Your task to perform on an android device: change the clock display to analog Image 0: 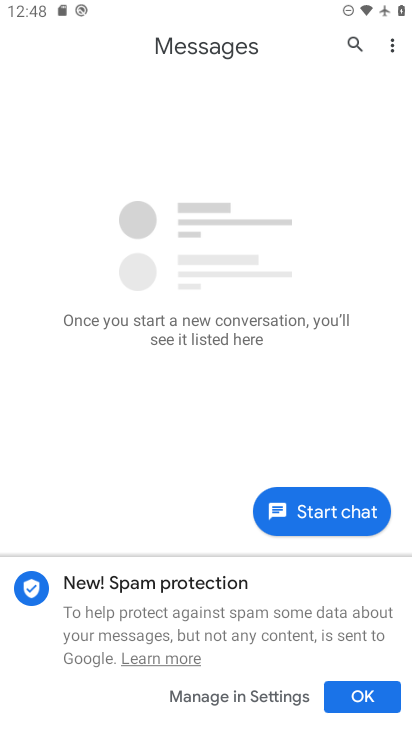
Step 0: press back button
Your task to perform on an android device: change the clock display to analog Image 1: 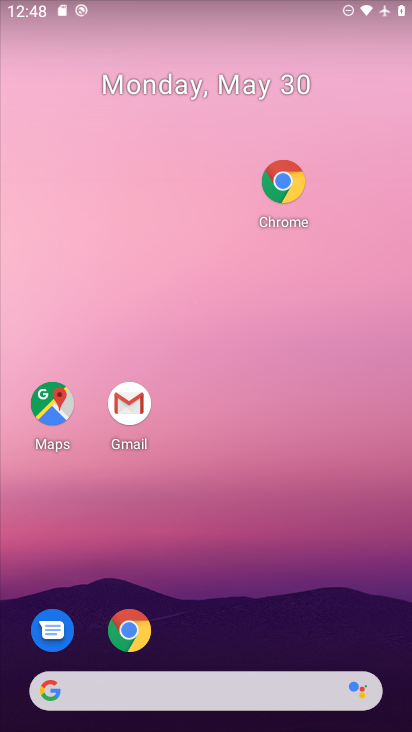
Step 1: drag from (244, 719) to (180, 239)
Your task to perform on an android device: change the clock display to analog Image 2: 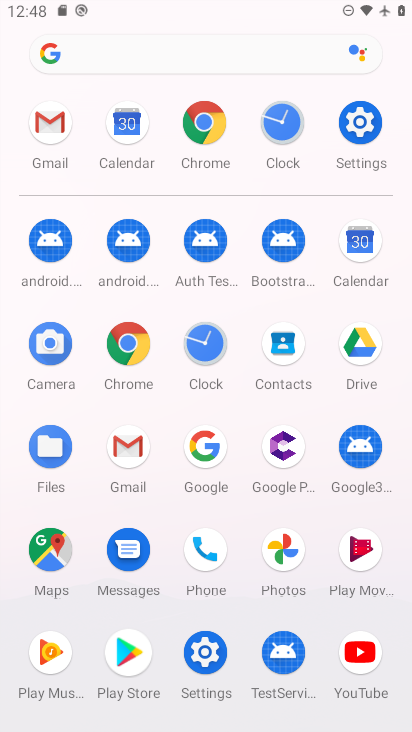
Step 2: click (205, 344)
Your task to perform on an android device: change the clock display to analog Image 3: 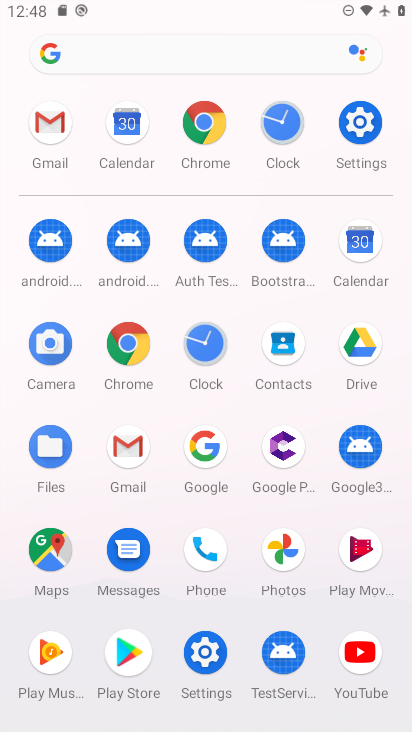
Step 3: click (212, 343)
Your task to perform on an android device: change the clock display to analog Image 4: 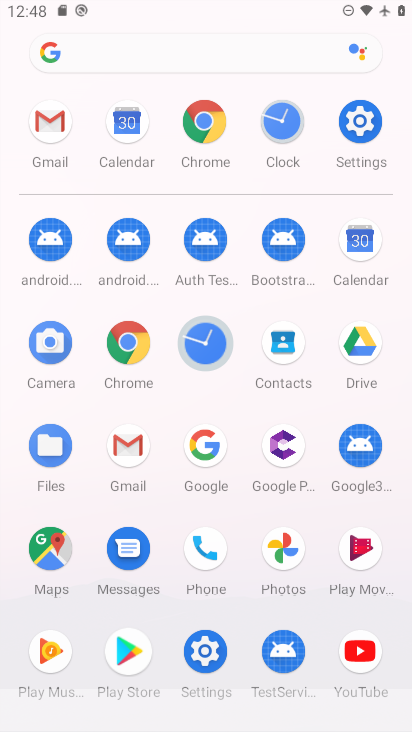
Step 4: click (213, 343)
Your task to perform on an android device: change the clock display to analog Image 5: 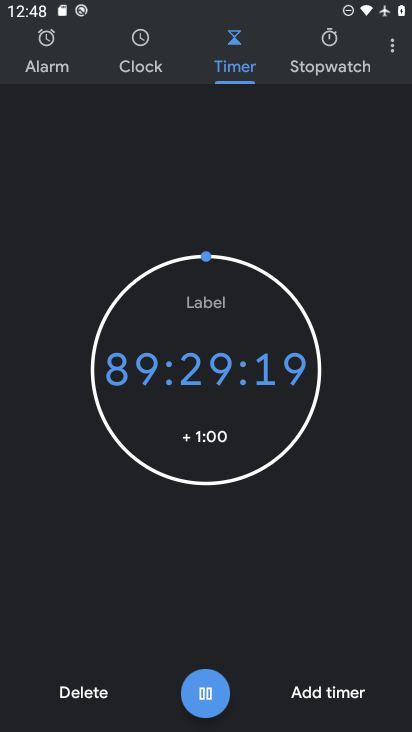
Step 5: click (384, 58)
Your task to perform on an android device: change the clock display to analog Image 6: 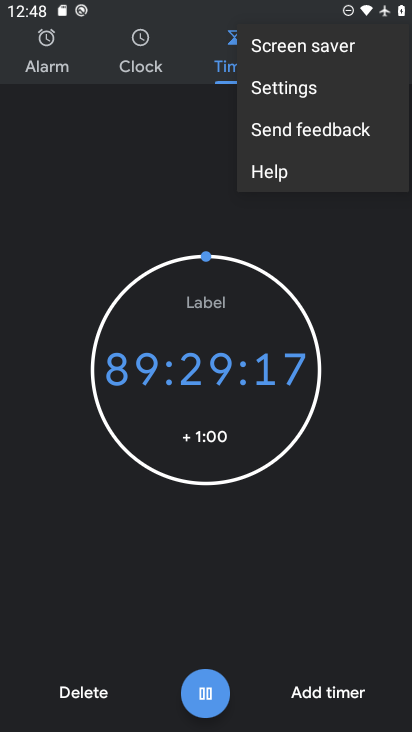
Step 6: click (290, 89)
Your task to perform on an android device: change the clock display to analog Image 7: 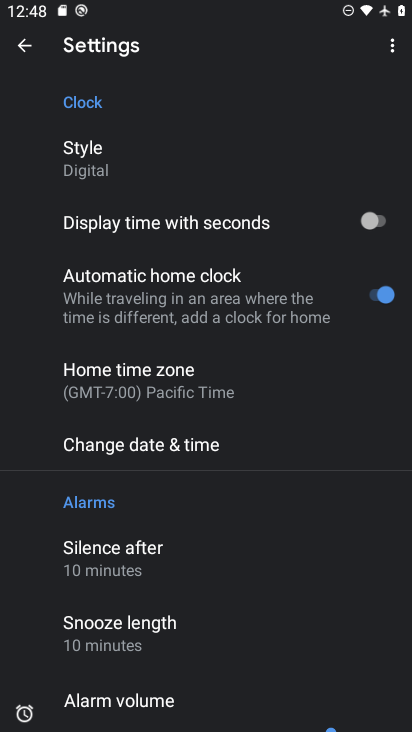
Step 7: click (136, 158)
Your task to perform on an android device: change the clock display to analog Image 8: 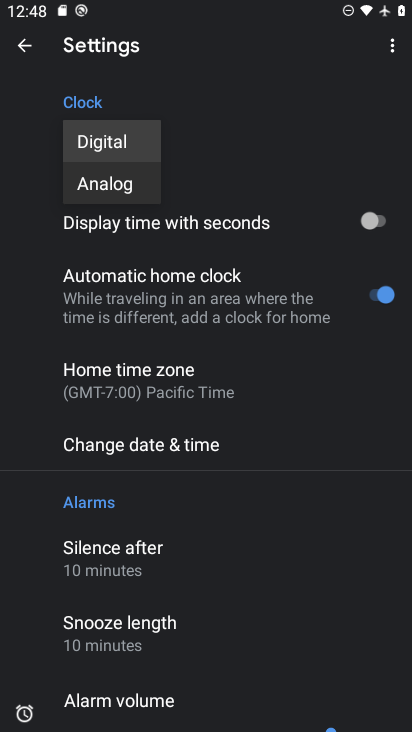
Step 8: click (112, 178)
Your task to perform on an android device: change the clock display to analog Image 9: 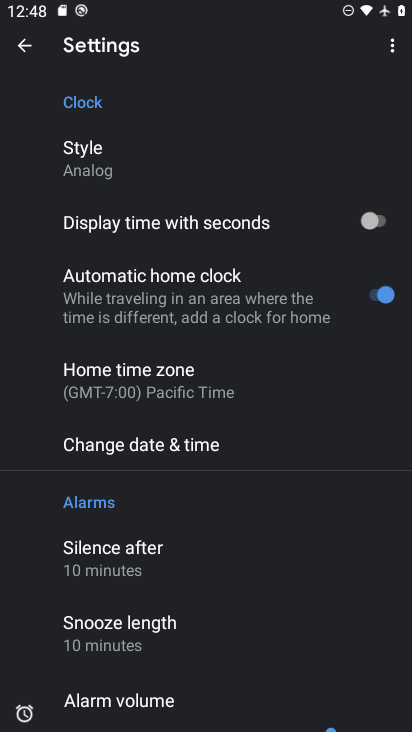
Step 9: task complete